Your task to perform on an android device: Open privacy settings Image 0: 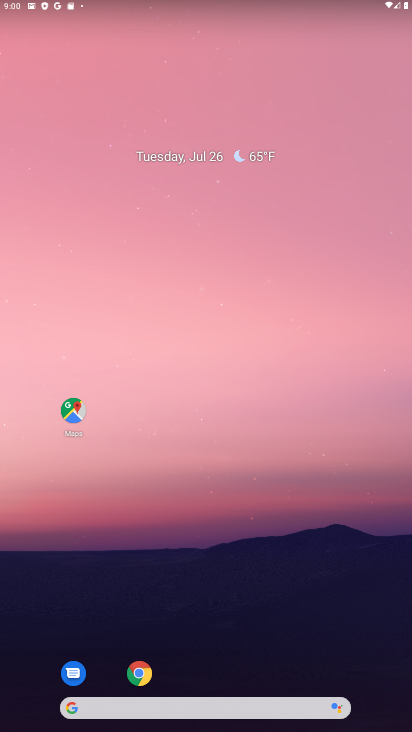
Step 0: drag from (378, 684) to (339, 186)
Your task to perform on an android device: Open privacy settings Image 1: 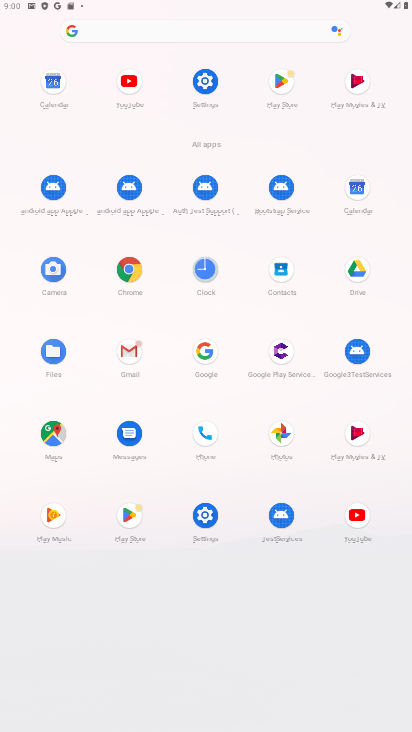
Step 1: click (204, 515)
Your task to perform on an android device: Open privacy settings Image 2: 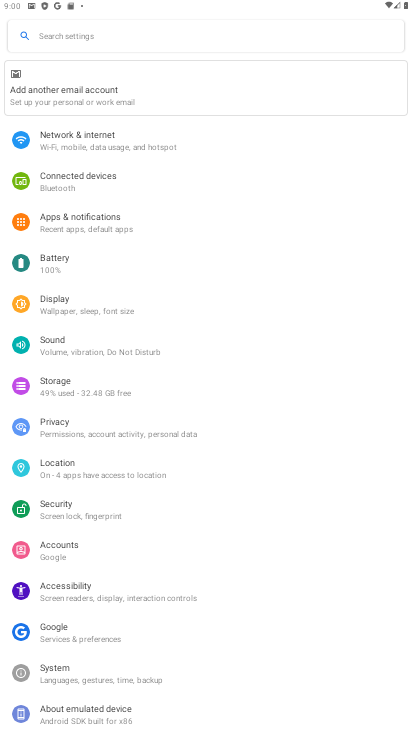
Step 2: click (59, 428)
Your task to perform on an android device: Open privacy settings Image 3: 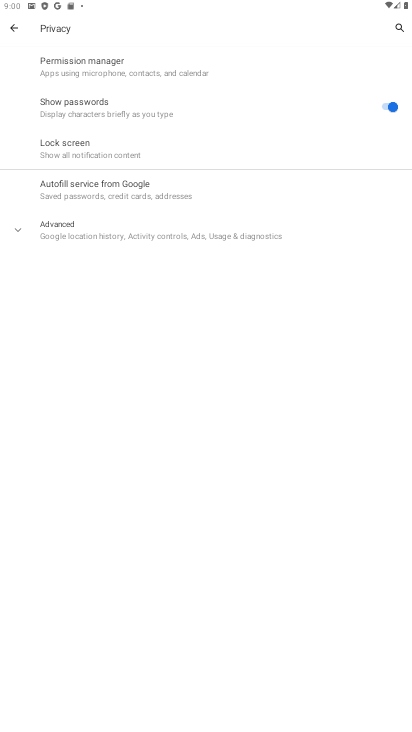
Step 3: click (19, 232)
Your task to perform on an android device: Open privacy settings Image 4: 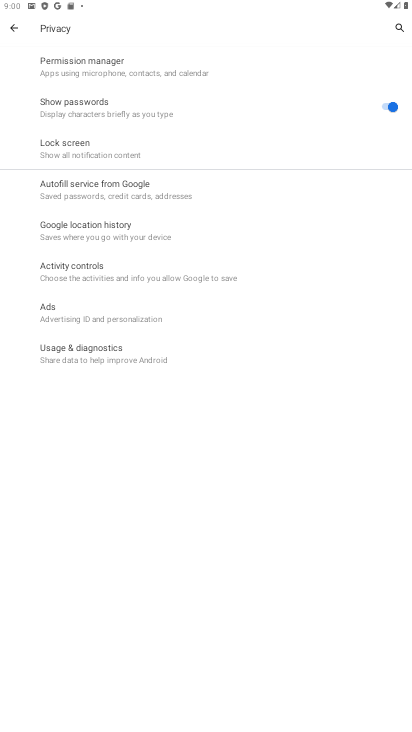
Step 4: task complete